Your task to perform on an android device: Open calendar and show me the second week of next month Image 0: 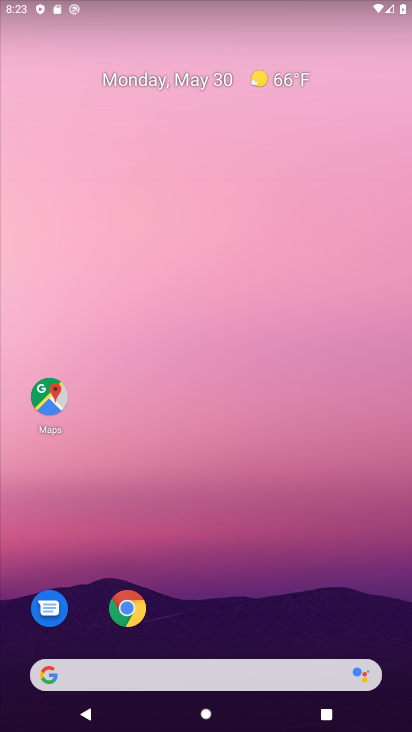
Step 0: drag from (244, 716) to (238, 63)
Your task to perform on an android device: Open calendar and show me the second week of next month Image 1: 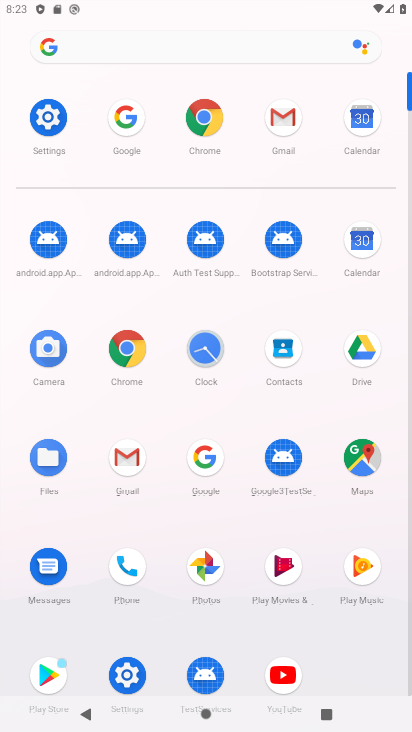
Step 1: click (366, 243)
Your task to perform on an android device: Open calendar and show me the second week of next month Image 2: 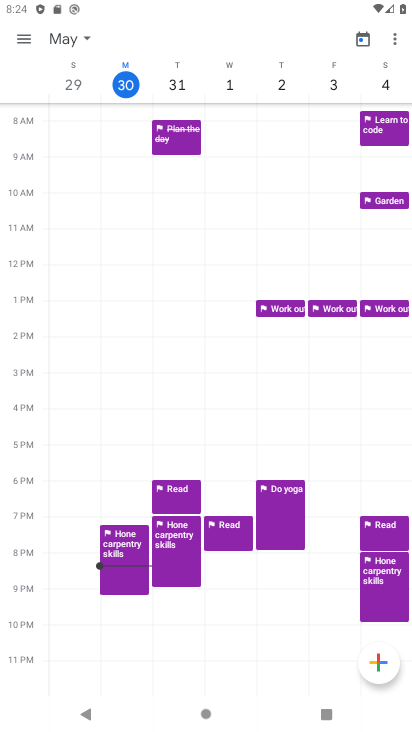
Step 2: click (87, 33)
Your task to perform on an android device: Open calendar and show me the second week of next month Image 3: 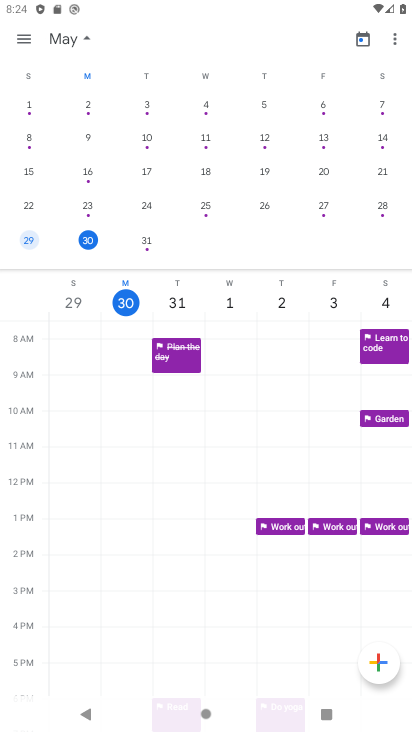
Step 3: drag from (341, 198) to (12, 200)
Your task to perform on an android device: Open calendar and show me the second week of next month Image 4: 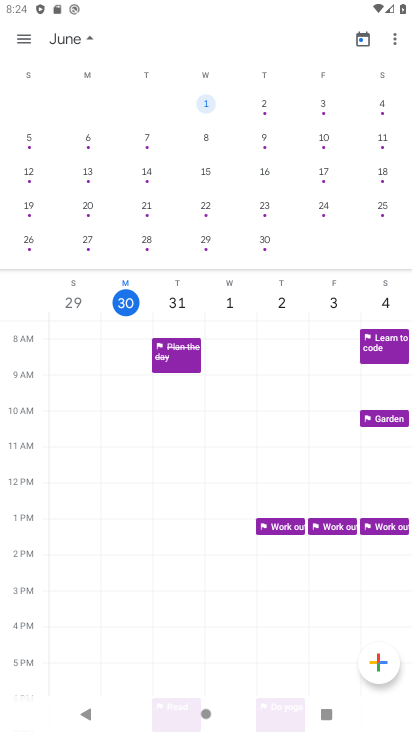
Step 4: click (87, 166)
Your task to perform on an android device: Open calendar and show me the second week of next month Image 5: 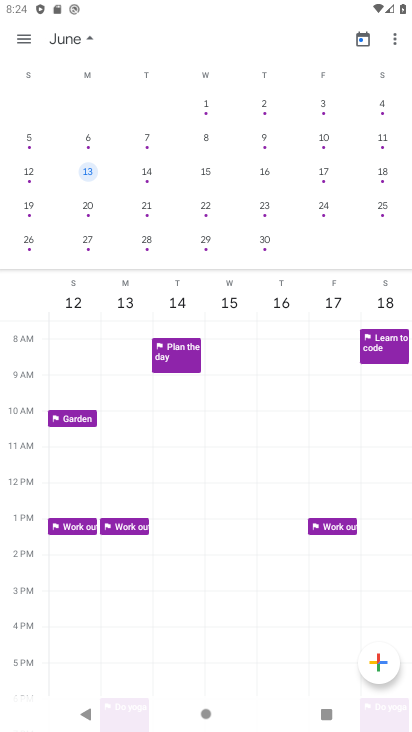
Step 5: click (28, 37)
Your task to perform on an android device: Open calendar and show me the second week of next month Image 6: 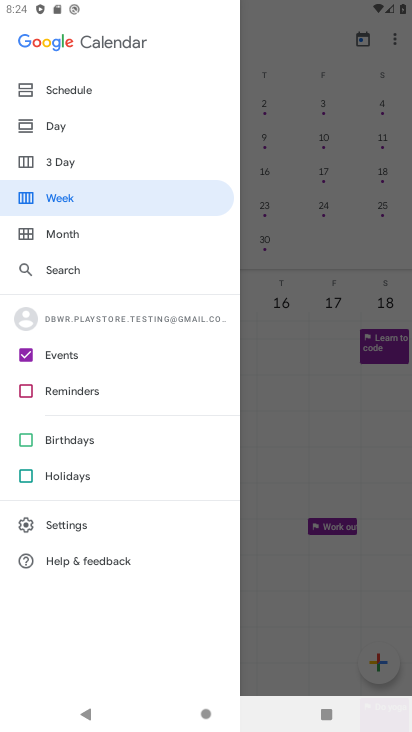
Step 6: click (61, 195)
Your task to perform on an android device: Open calendar and show me the second week of next month Image 7: 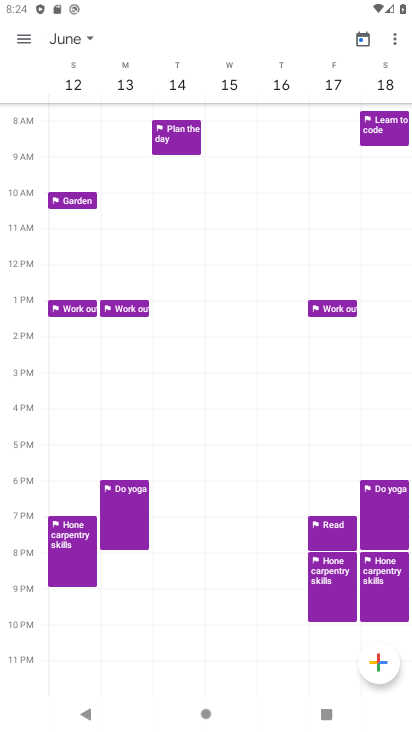
Step 7: task complete